Your task to perform on an android device: change the clock display to analog Image 0: 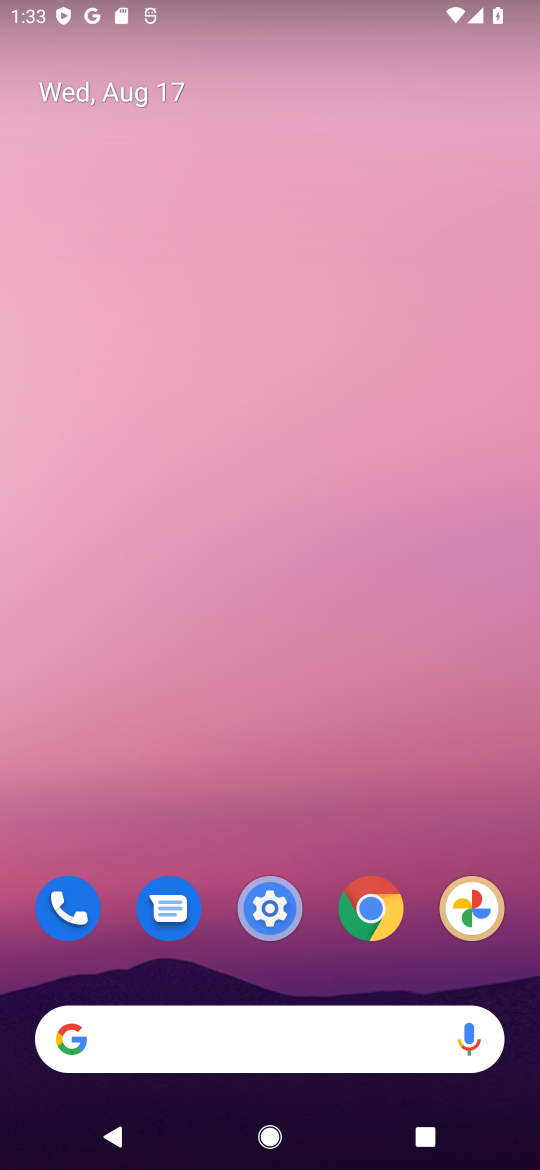
Step 0: press home button
Your task to perform on an android device: change the clock display to analog Image 1: 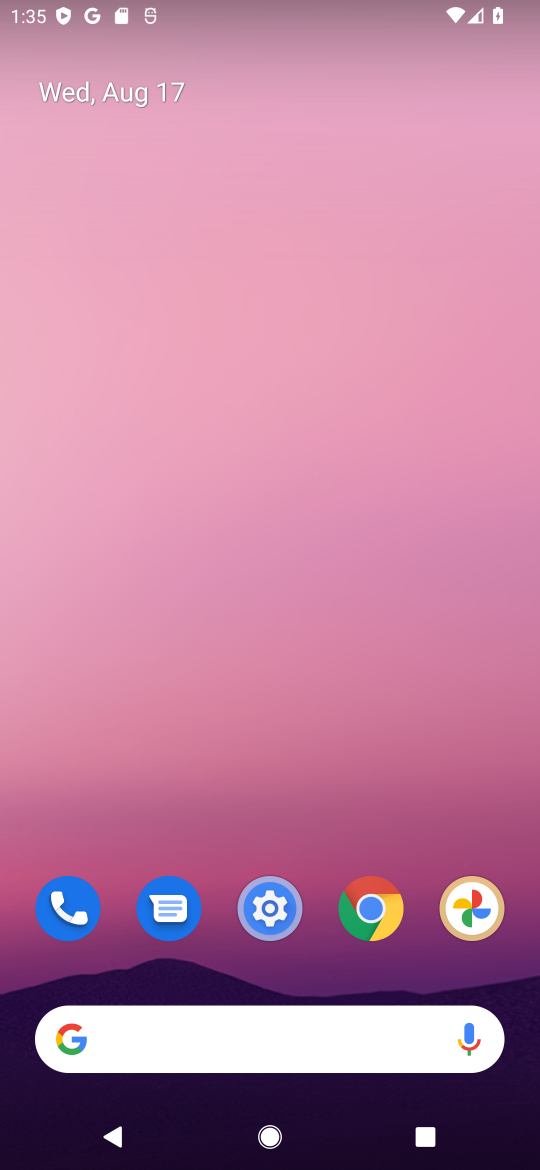
Step 1: drag from (301, 982) to (370, 210)
Your task to perform on an android device: change the clock display to analog Image 2: 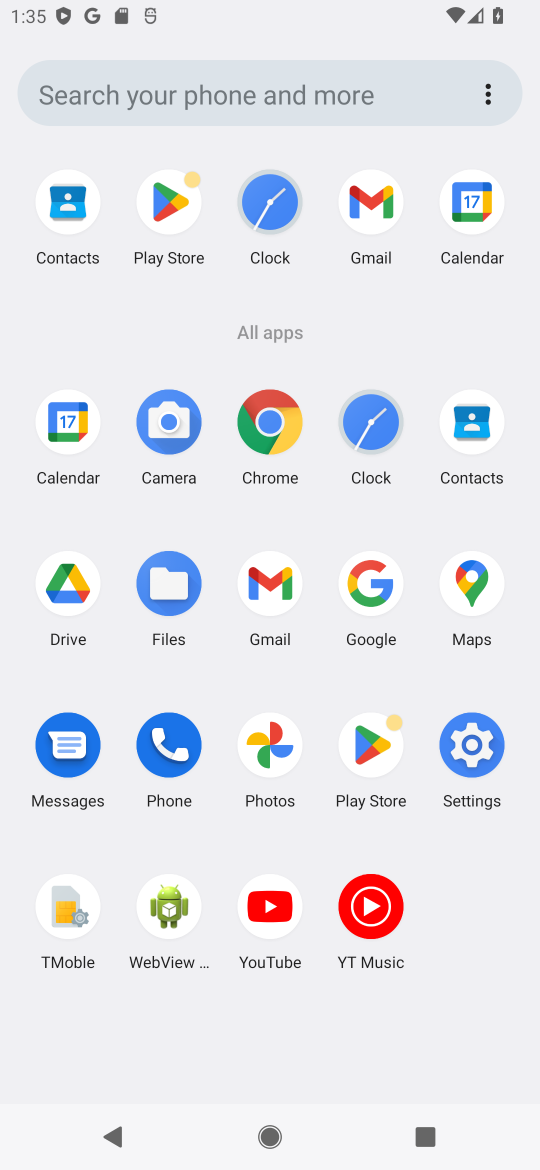
Step 2: click (366, 429)
Your task to perform on an android device: change the clock display to analog Image 3: 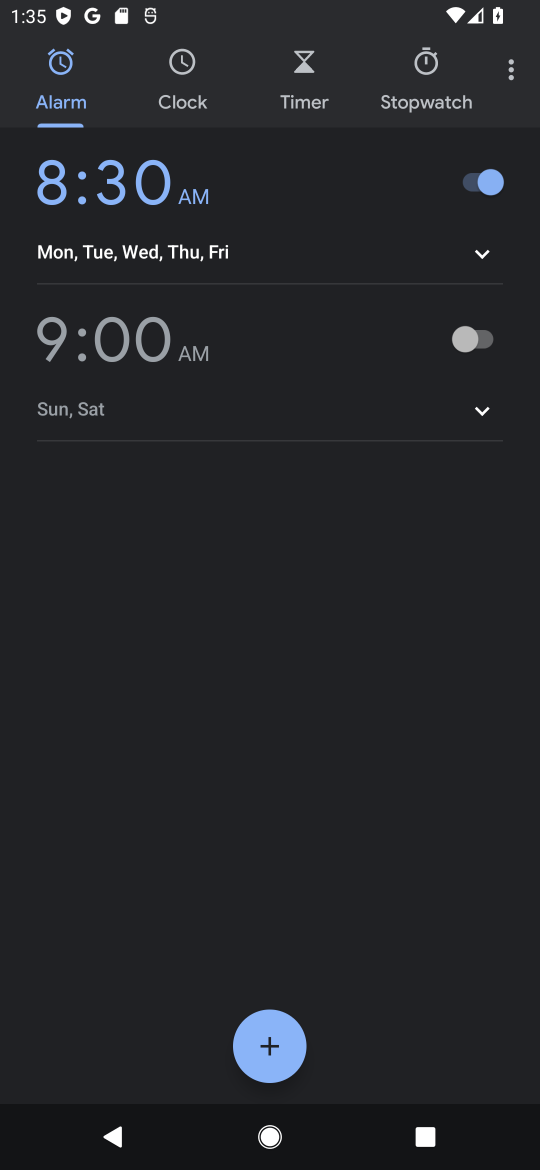
Step 3: click (501, 81)
Your task to perform on an android device: change the clock display to analog Image 4: 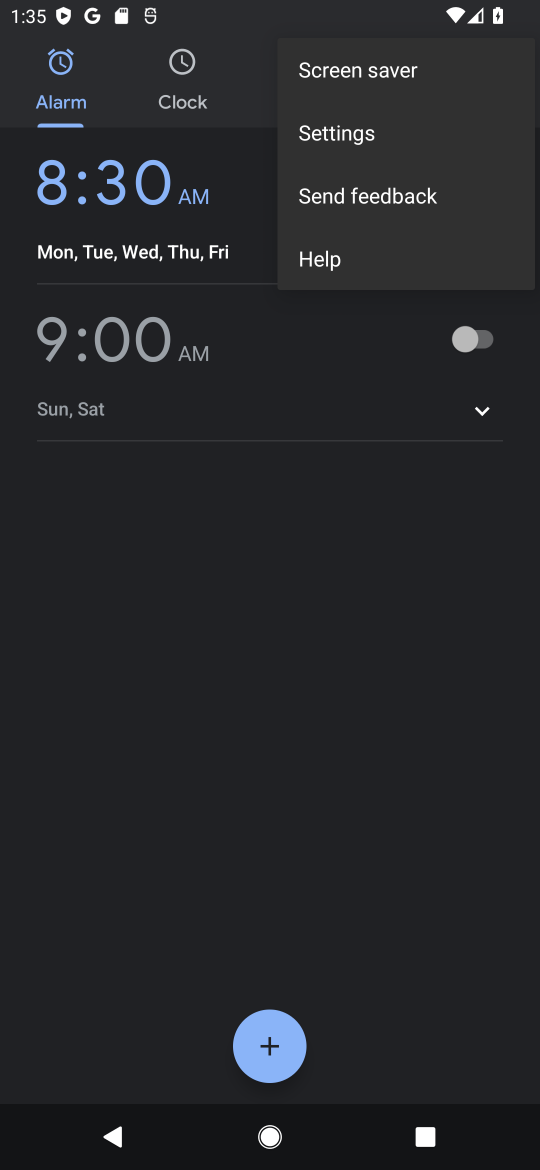
Step 4: click (380, 135)
Your task to perform on an android device: change the clock display to analog Image 5: 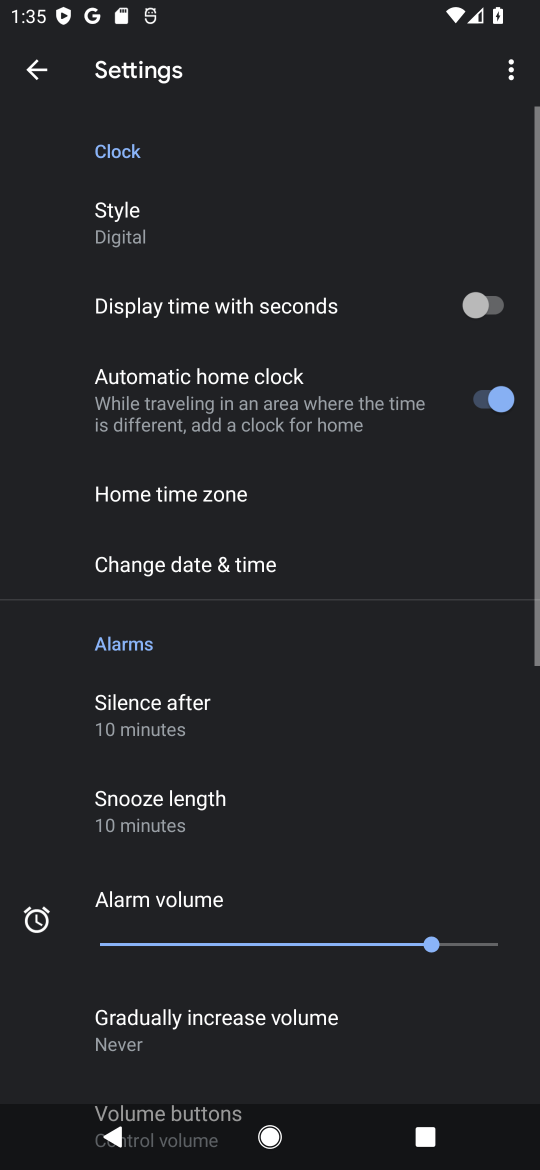
Step 5: click (119, 236)
Your task to perform on an android device: change the clock display to analog Image 6: 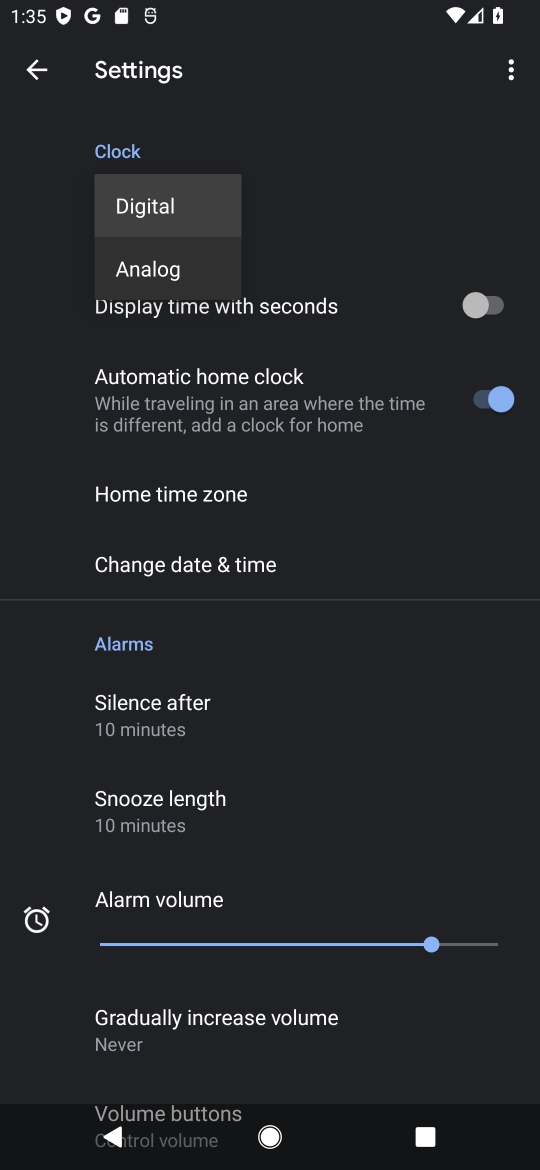
Step 6: click (137, 282)
Your task to perform on an android device: change the clock display to analog Image 7: 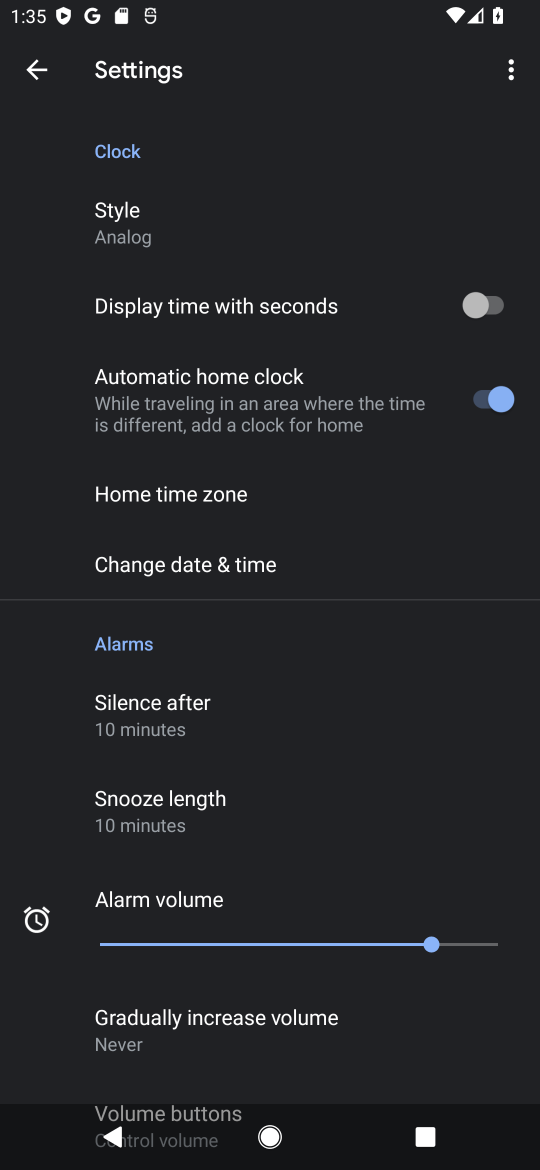
Step 7: task complete